Your task to perform on an android device: create a new album in the google photos Image 0: 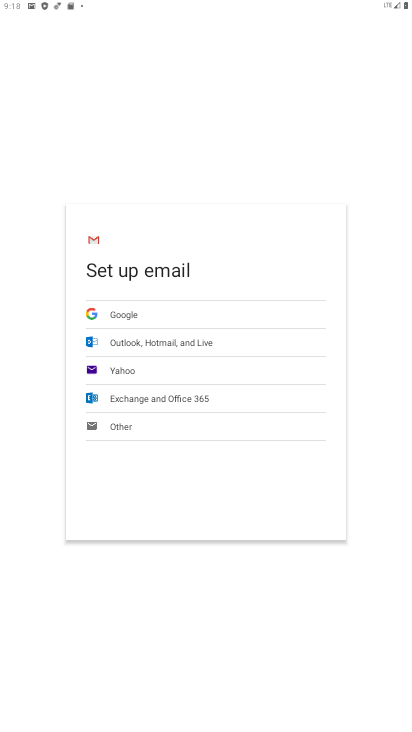
Step 0: drag from (190, 667) to (244, 94)
Your task to perform on an android device: create a new album in the google photos Image 1: 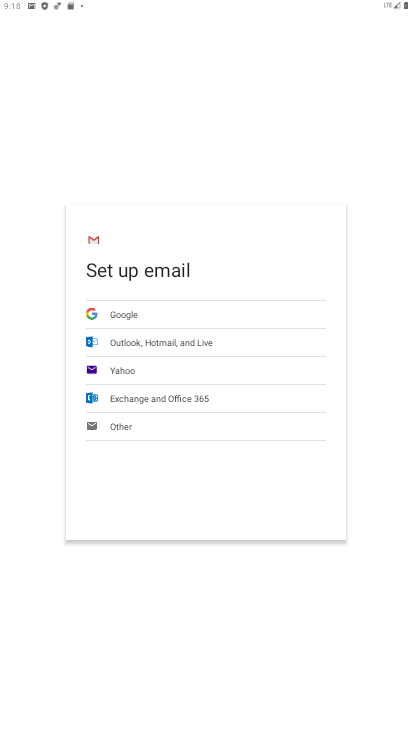
Step 1: press home button
Your task to perform on an android device: create a new album in the google photos Image 2: 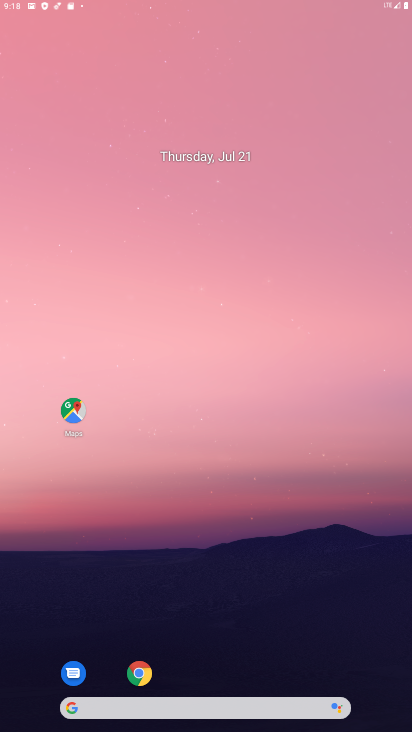
Step 2: drag from (221, 582) to (298, 145)
Your task to perform on an android device: create a new album in the google photos Image 3: 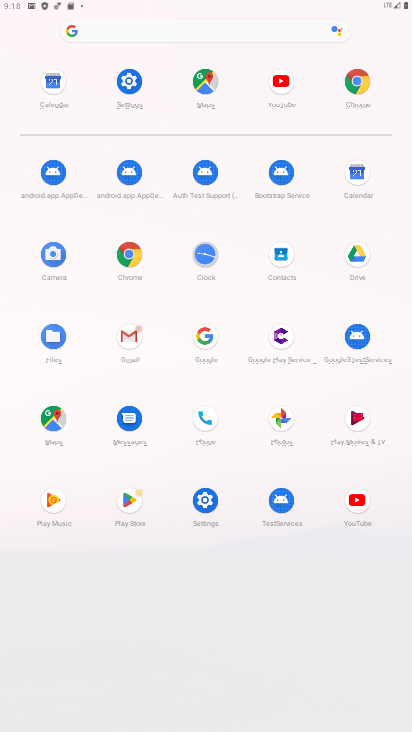
Step 3: click (276, 419)
Your task to perform on an android device: create a new album in the google photos Image 4: 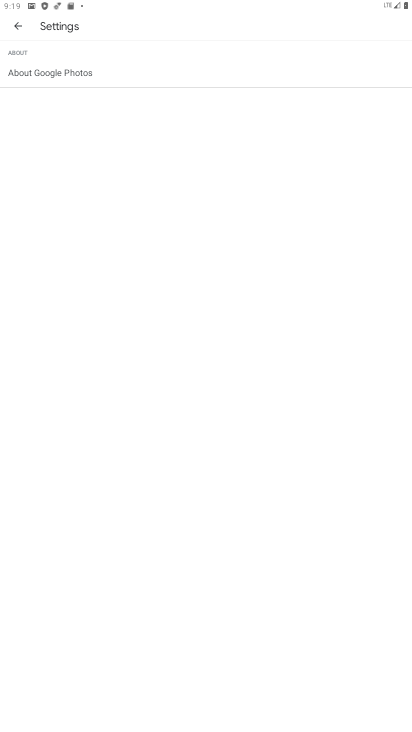
Step 4: drag from (185, 321) to (336, 720)
Your task to perform on an android device: create a new album in the google photos Image 5: 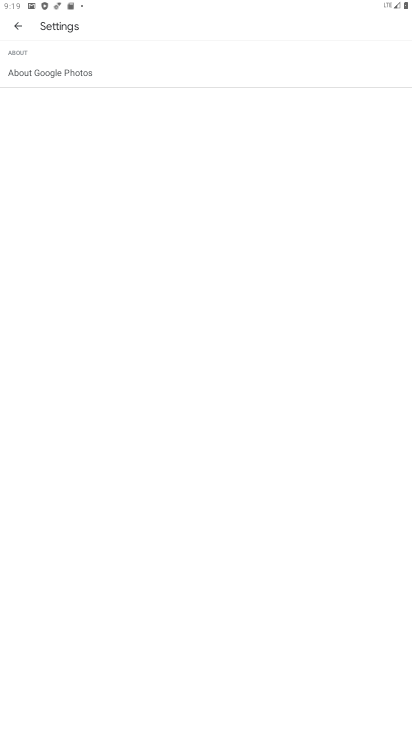
Step 5: click (20, 26)
Your task to perform on an android device: create a new album in the google photos Image 6: 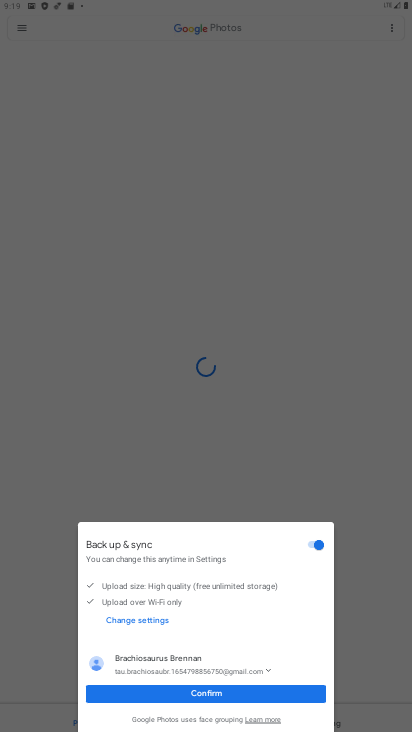
Step 6: click (207, 699)
Your task to perform on an android device: create a new album in the google photos Image 7: 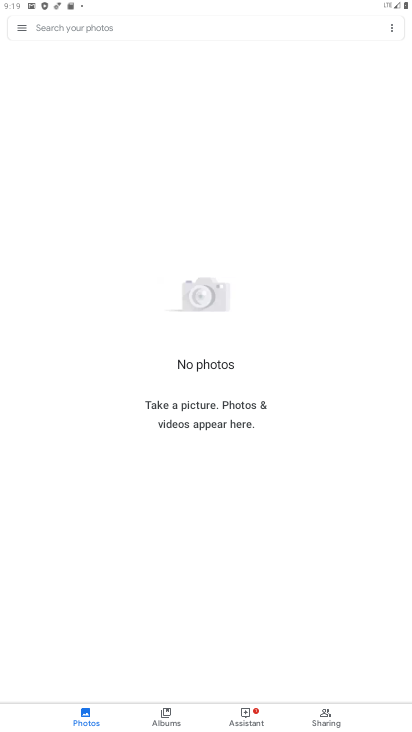
Step 7: click (173, 712)
Your task to perform on an android device: create a new album in the google photos Image 8: 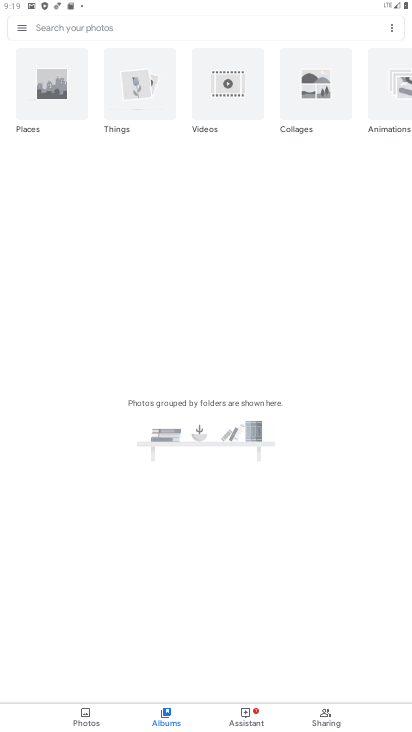
Step 8: click (331, 717)
Your task to perform on an android device: create a new album in the google photos Image 9: 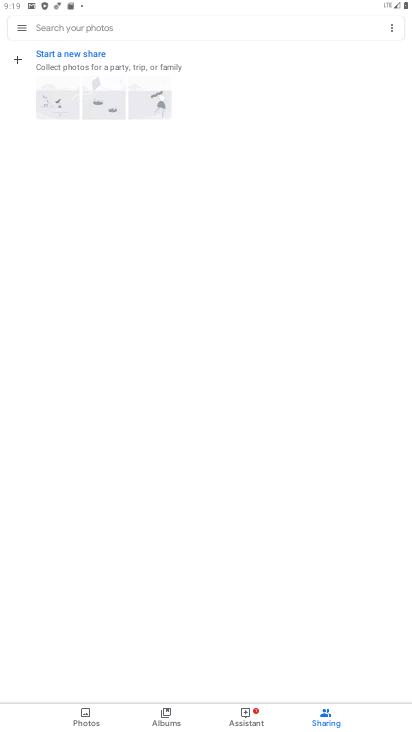
Step 9: click (118, 252)
Your task to perform on an android device: create a new album in the google photos Image 10: 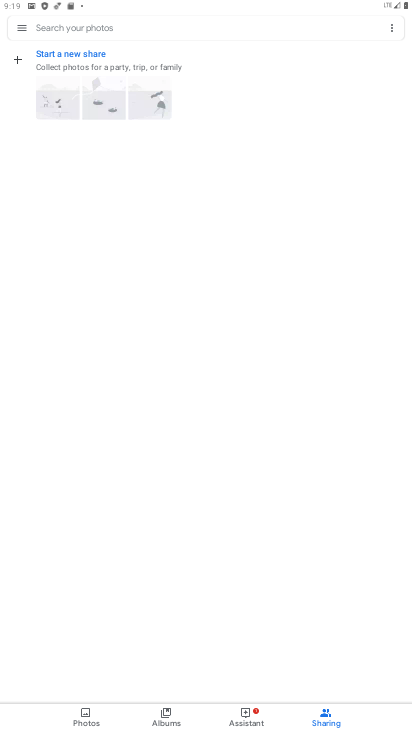
Step 10: click (18, 57)
Your task to perform on an android device: create a new album in the google photos Image 11: 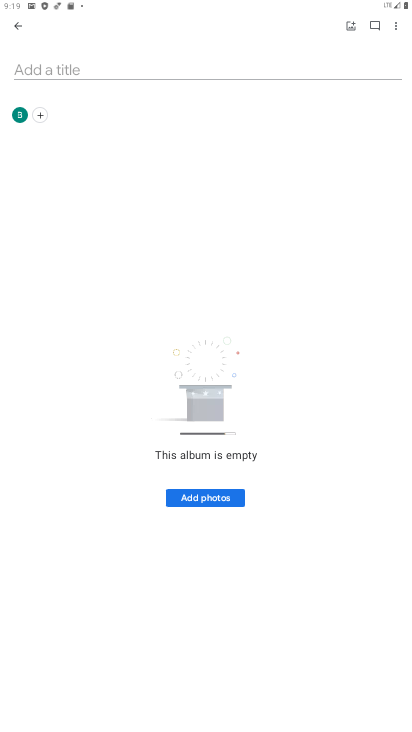
Step 11: task complete